Your task to perform on an android device: Open Yahoo.com Image 0: 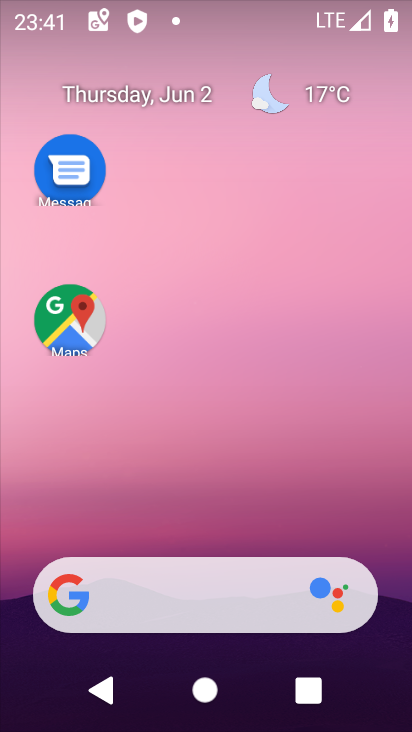
Step 0: drag from (218, 489) to (235, 45)
Your task to perform on an android device: Open Yahoo.com Image 1: 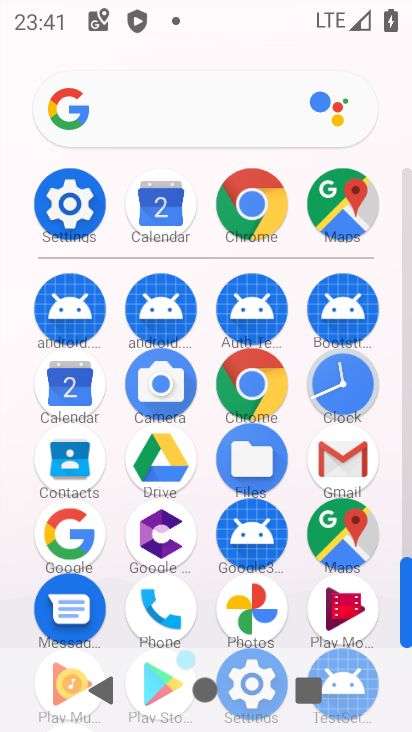
Step 1: click (238, 383)
Your task to perform on an android device: Open Yahoo.com Image 2: 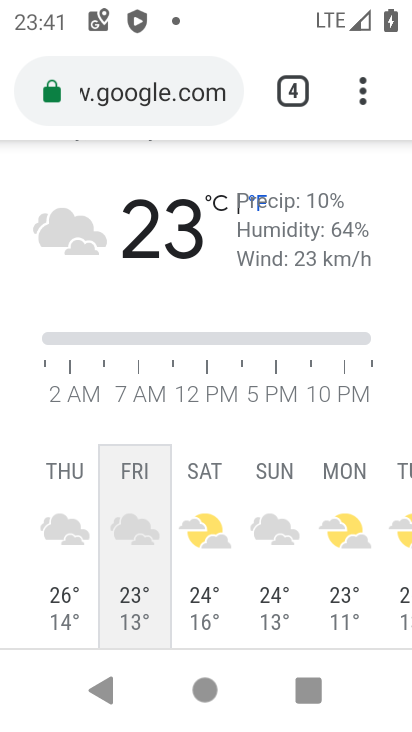
Step 2: click (120, 100)
Your task to perform on an android device: Open Yahoo.com Image 3: 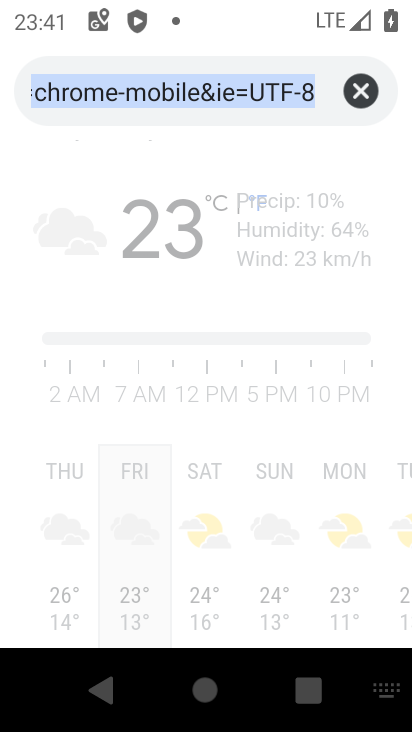
Step 3: click (349, 93)
Your task to perform on an android device: Open Yahoo.com Image 4: 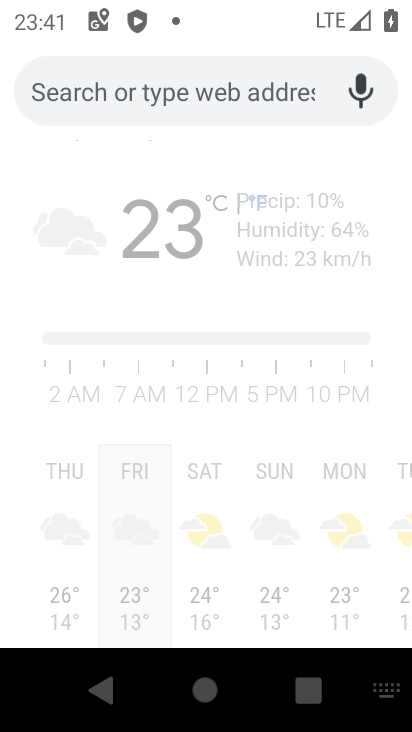
Step 4: type "Yahoo.com"
Your task to perform on an android device: Open Yahoo.com Image 5: 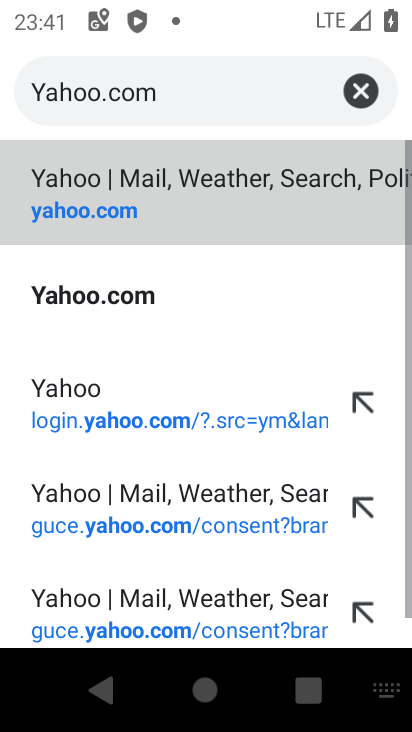
Step 5: click (167, 158)
Your task to perform on an android device: Open Yahoo.com Image 6: 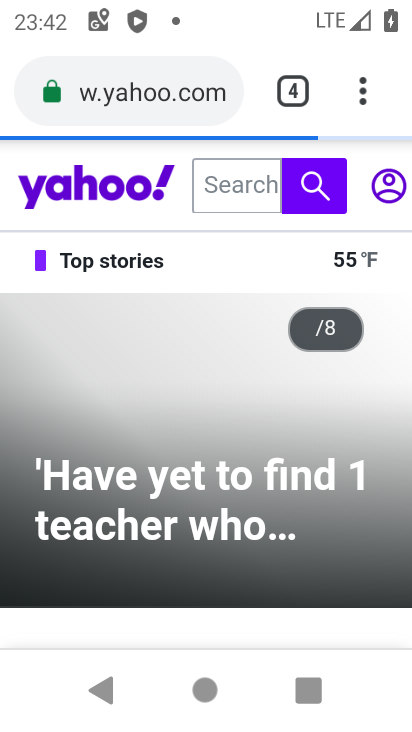
Step 6: task complete